Your task to perform on an android device: Go to Reddit.com Image 0: 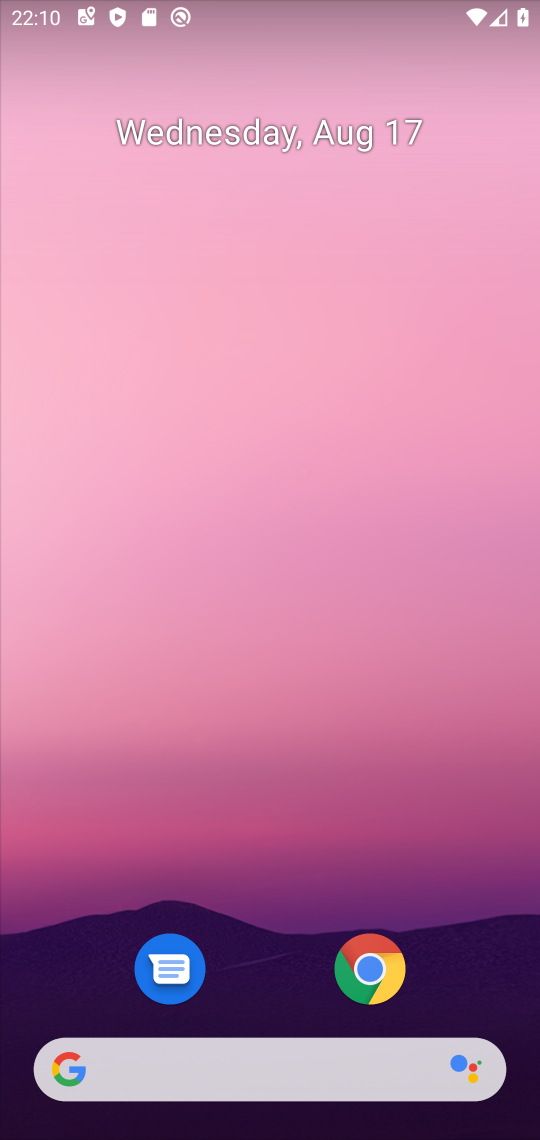
Step 0: click (255, 1052)
Your task to perform on an android device: Go to Reddit.com Image 1: 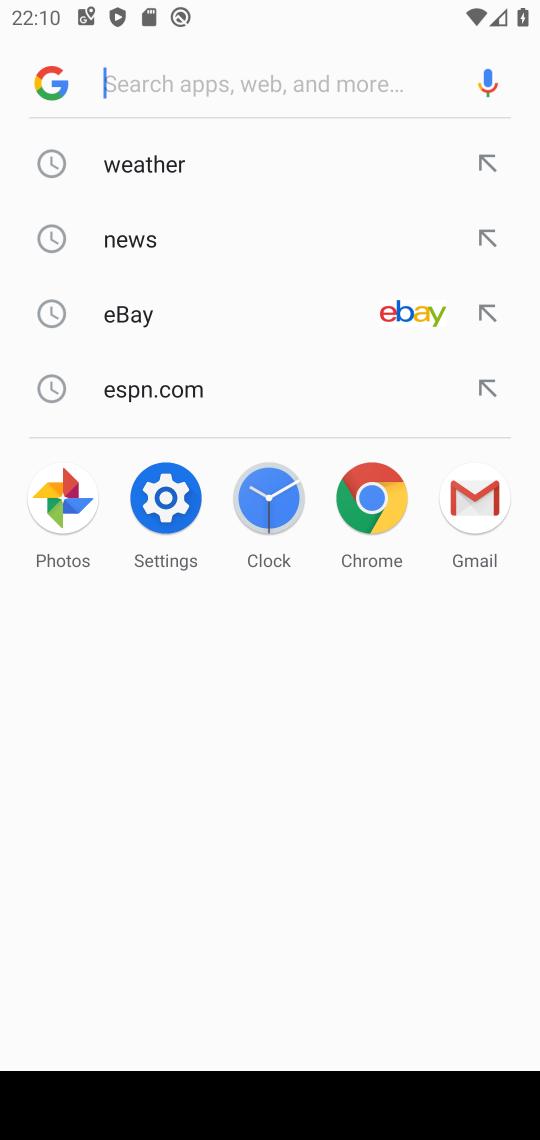
Step 1: type "reddit.com"
Your task to perform on an android device: Go to Reddit.com Image 2: 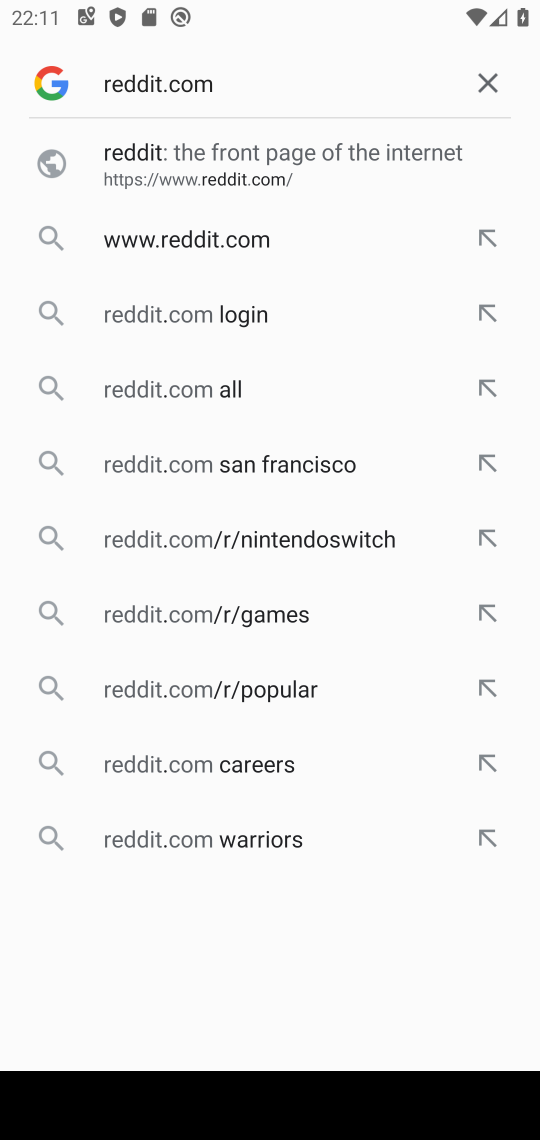
Step 2: click (229, 236)
Your task to perform on an android device: Go to Reddit.com Image 3: 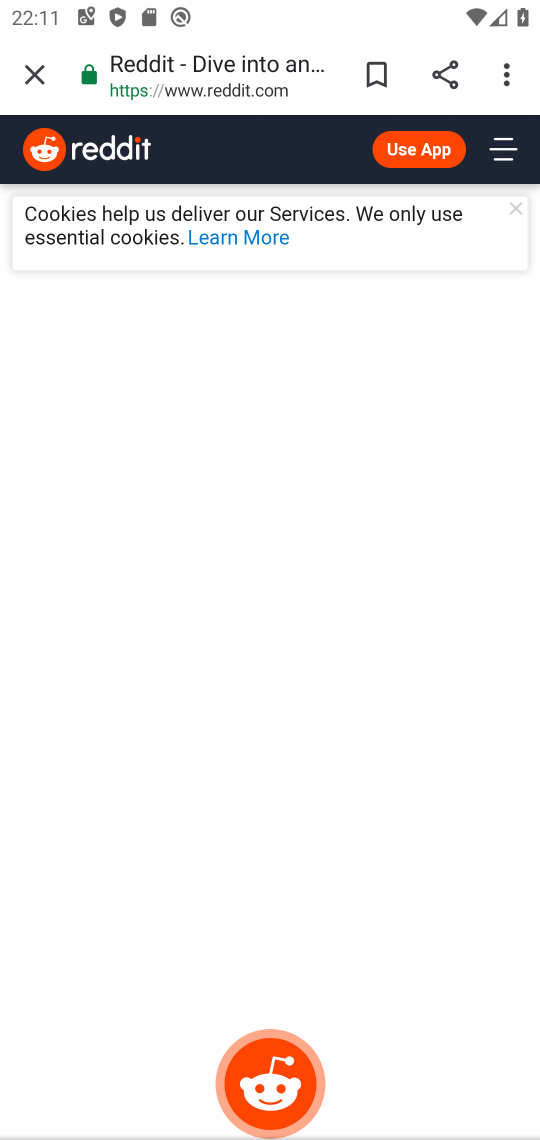
Step 3: task complete